Your task to perform on an android device: Go to network settings Image 0: 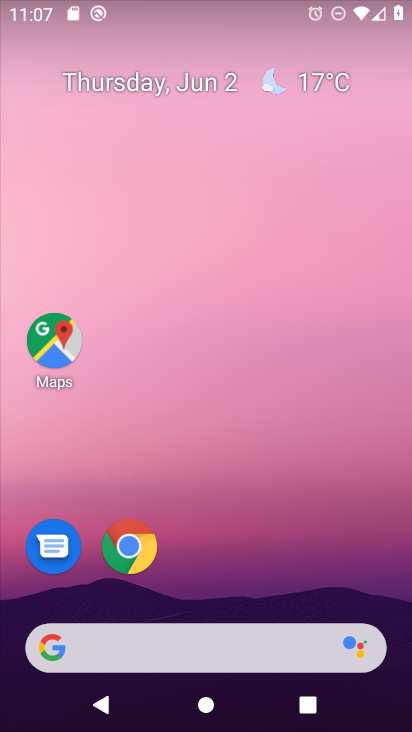
Step 0: drag from (213, 560) to (154, 18)
Your task to perform on an android device: Go to network settings Image 1: 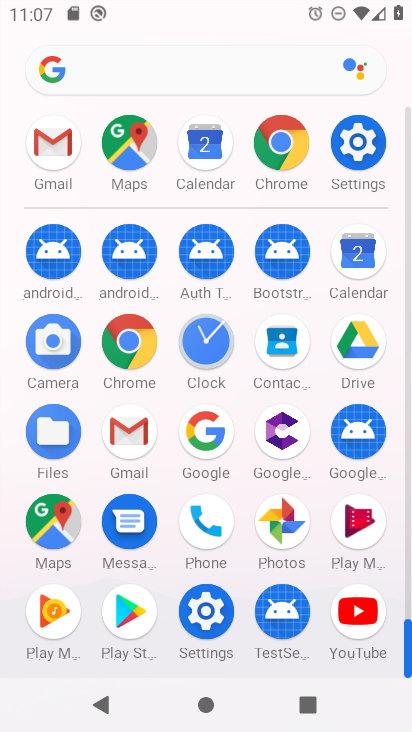
Step 1: drag from (0, 316) to (0, 238)
Your task to perform on an android device: Go to network settings Image 2: 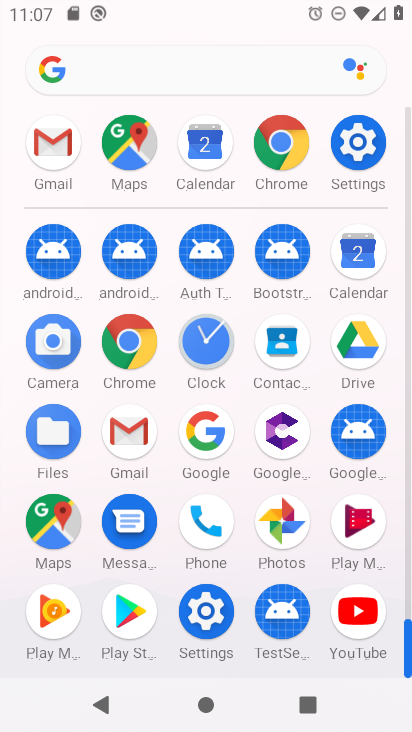
Step 2: click (207, 608)
Your task to perform on an android device: Go to network settings Image 3: 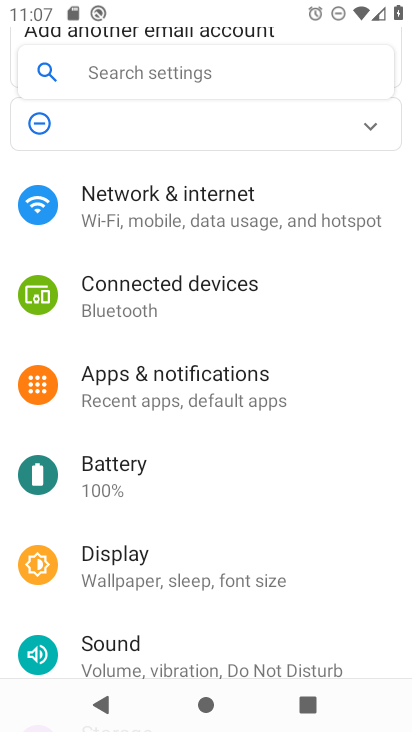
Step 3: click (200, 219)
Your task to perform on an android device: Go to network settings Image 4: 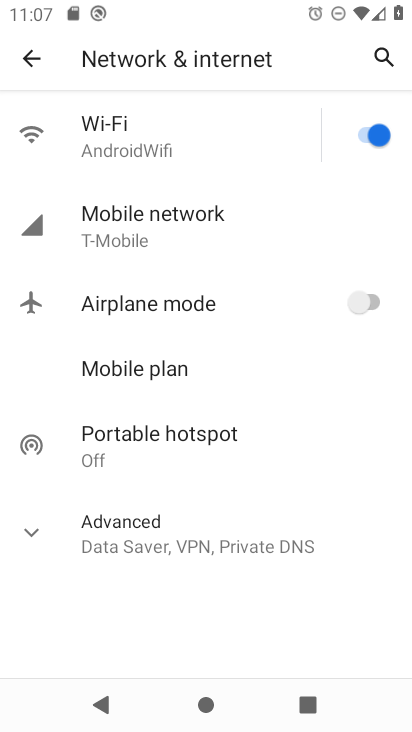
Step 4: click (41, 528)
Your task to perform on an android device: Go to network settings Image 5: 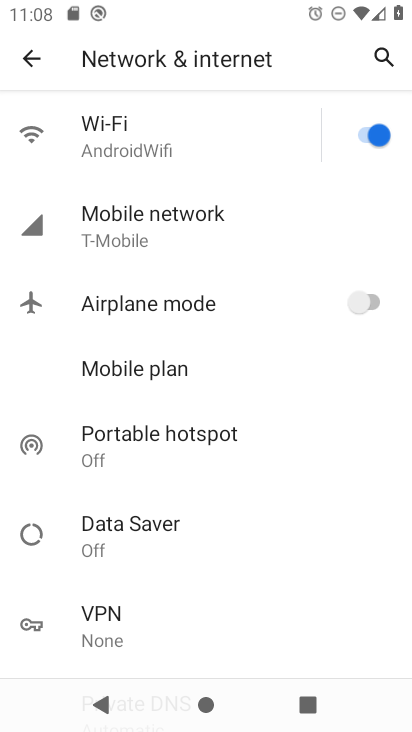
Step 5: task complete